Your task to perform on an android device: check android version Image 0: 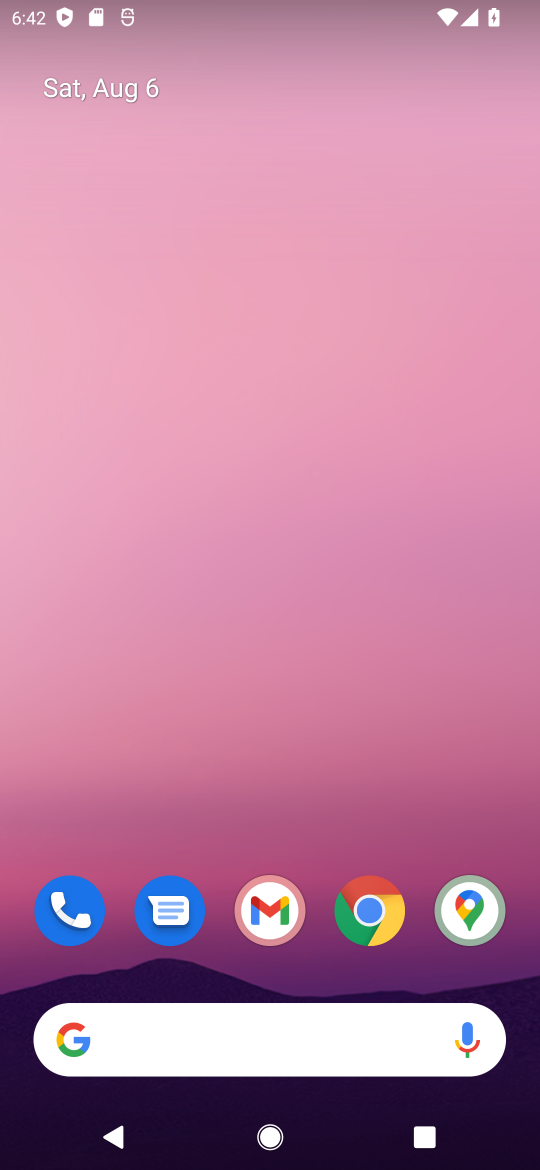
Step 0: drag from (518, 1042) to (452, 127)
Your task to perform on an android device: check android version Image 1: 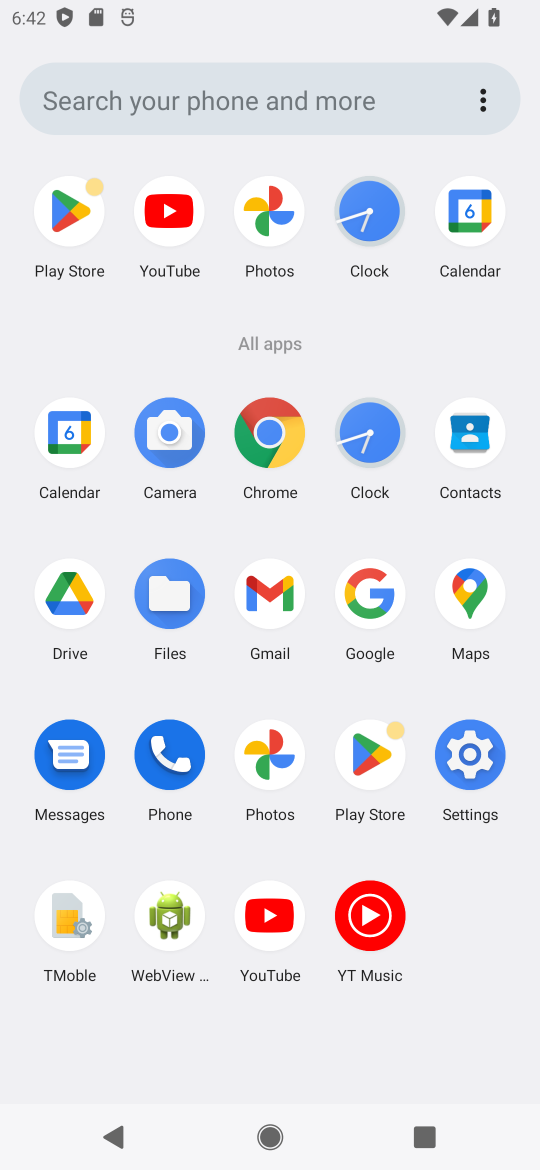
Step 1: click (485, 757)
Your task to perform on an android device: check android version Image 2: 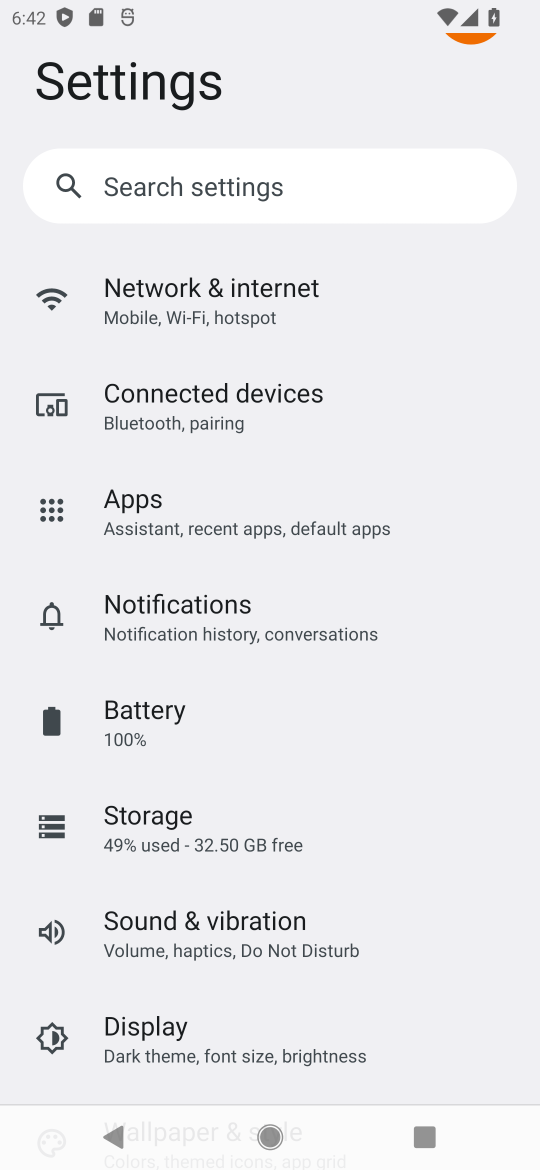
Step 2: drag from (438, 1012) to (465, 49)
Your task to perform on an android device: check android version Image 3: 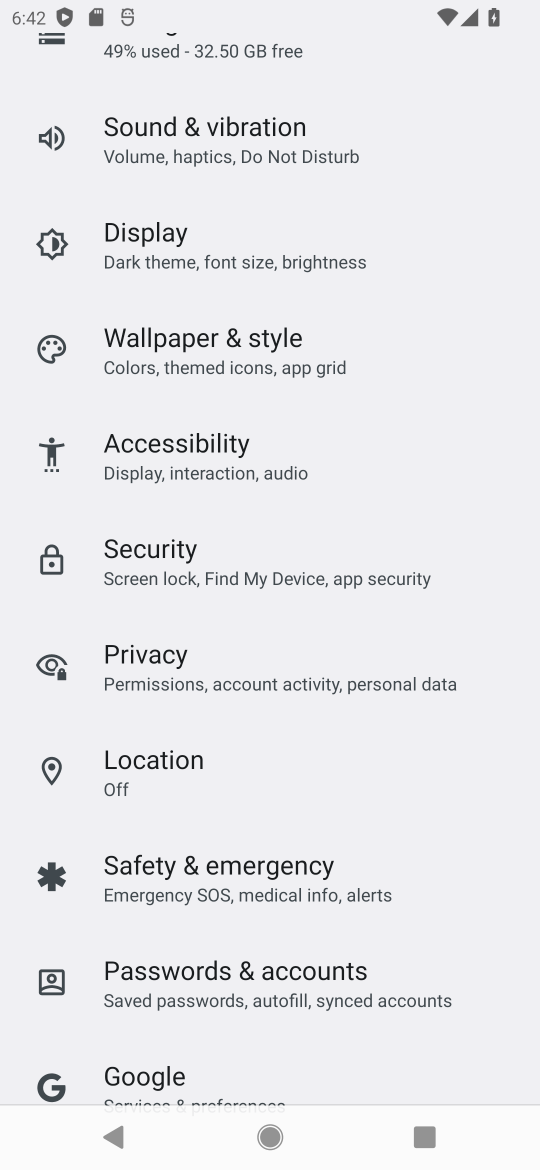
Step 3: drag from (415, 1017) to (361, 176)
Your task to perform on an android device: check android version Image 4: 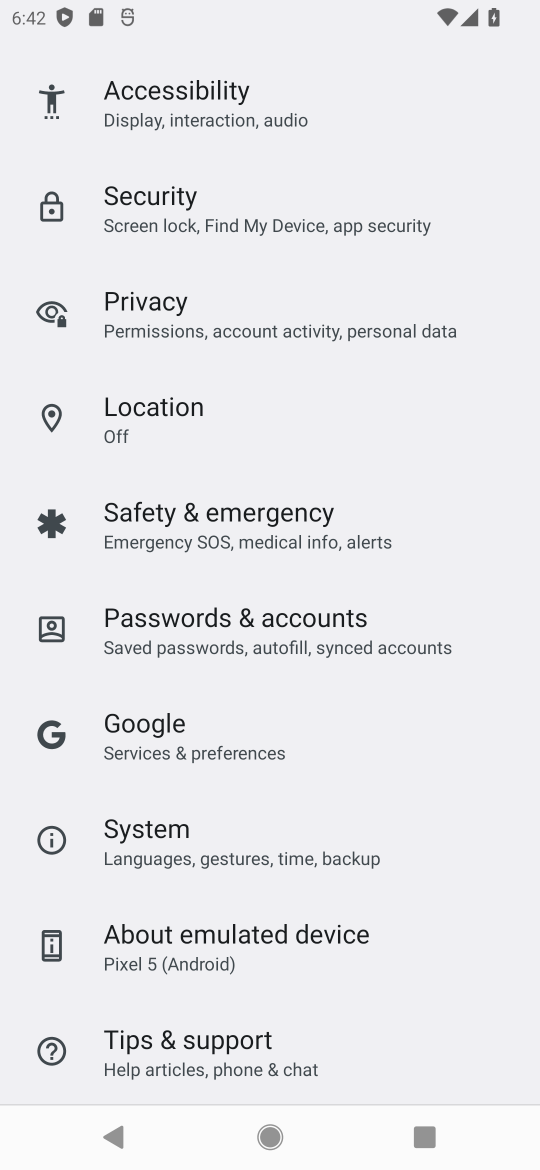
Step 4: click (188, 926)
Your task to perform on an android device: check android version Image 5: 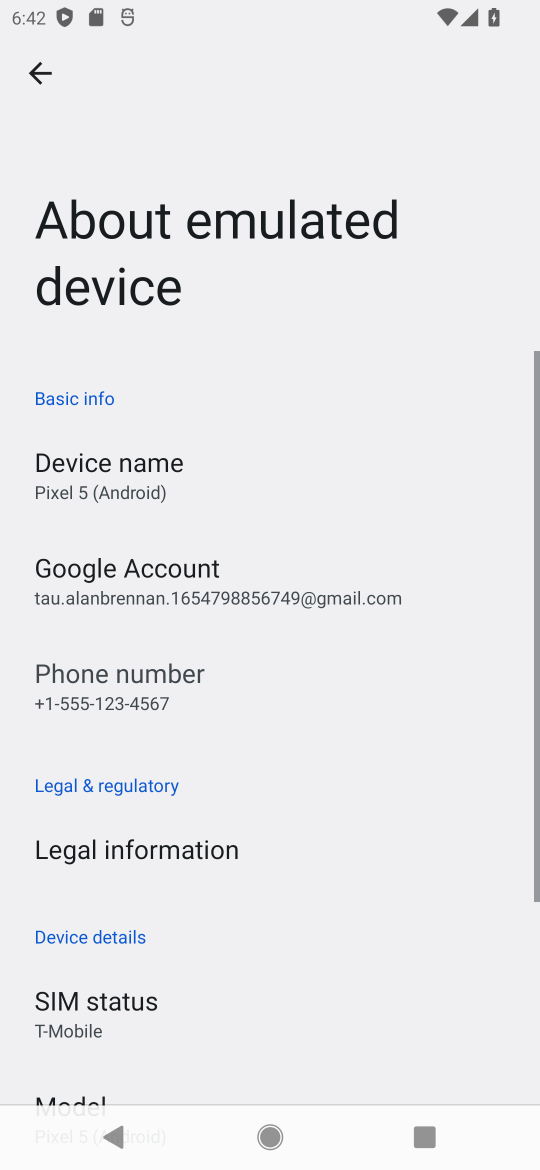
Step 5: drag from (405, 995) to (380, 316)
Your task to perform on an android device: check android version Image 6: 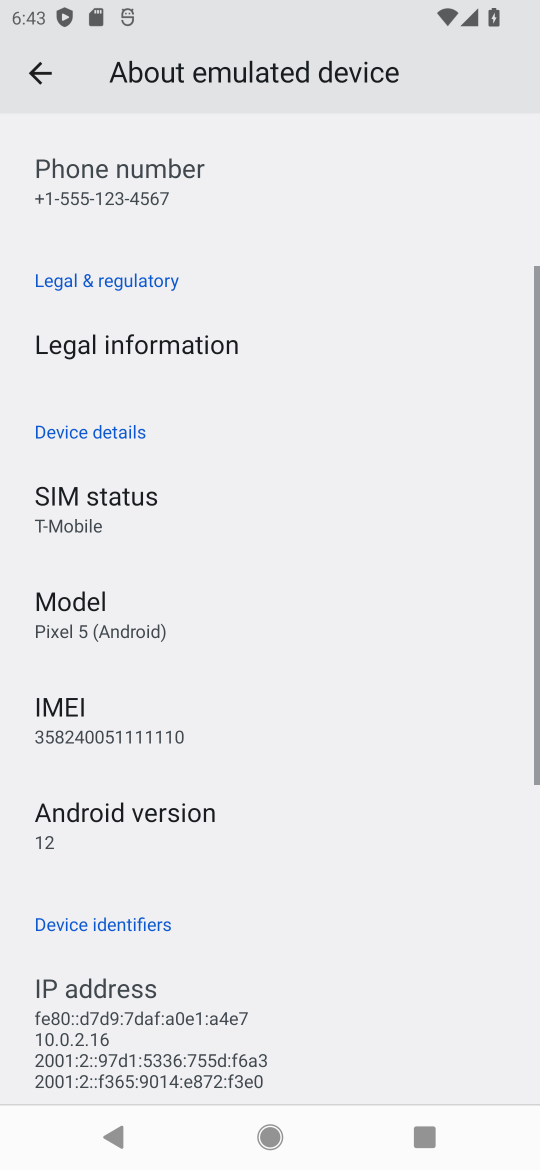
Step 6: click (53, 816)
Your task to perform on an android device: check android version Image 7: 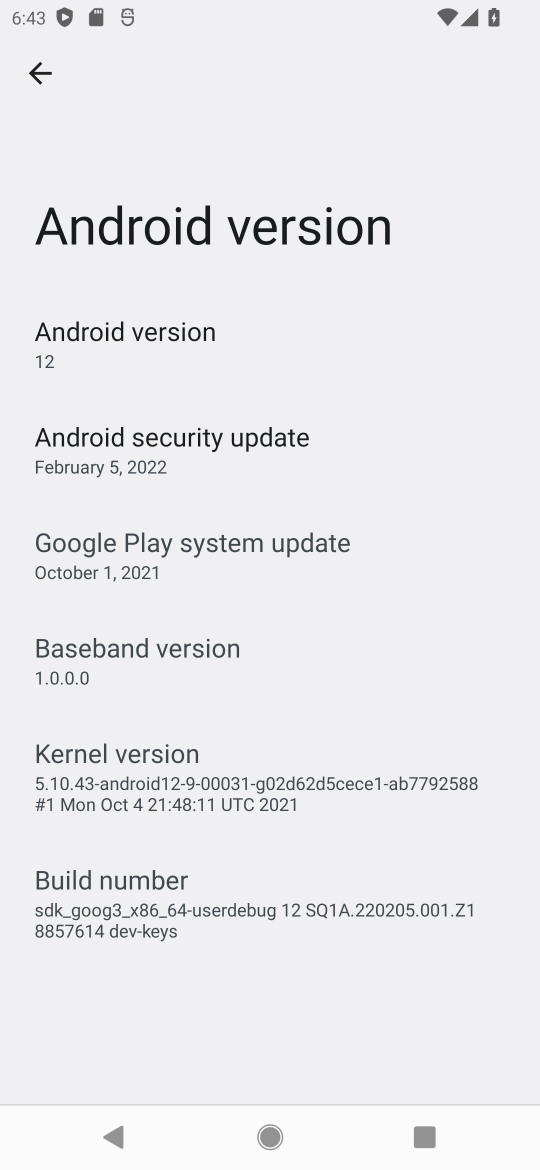
Step 7: task complete